Your task to perform on an android device: Show me productivity apps on the Play Store Image 0: 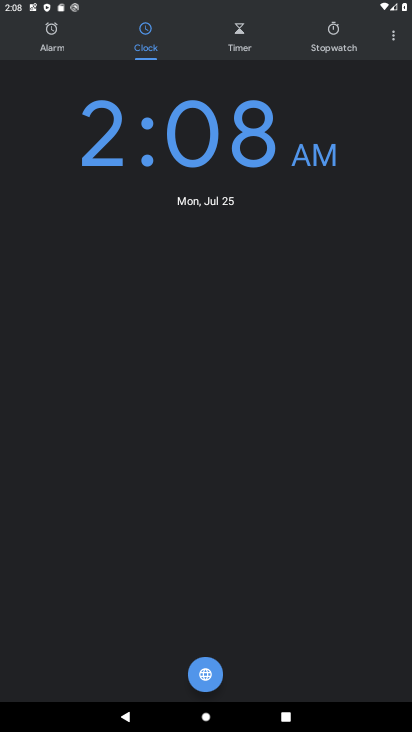
Step 0: press home button
Your task to perform on an android device: Show me productivity apps on the Play Store Image 1: 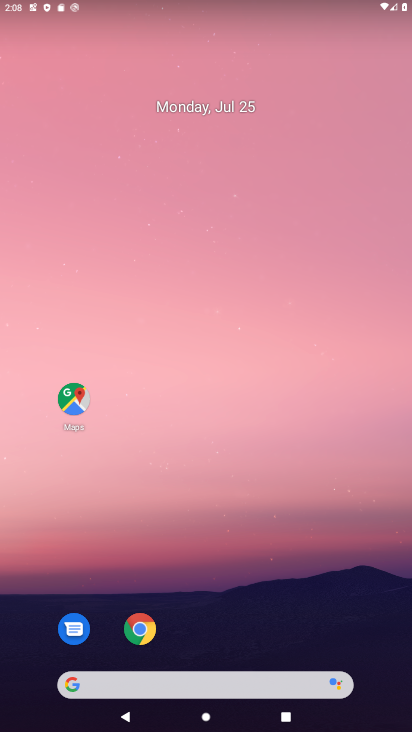
Step 1: drag from (210, 629) to (248, 27)
Your task to perform on an android device: Show me productivity apps on the Play Store Image 2: 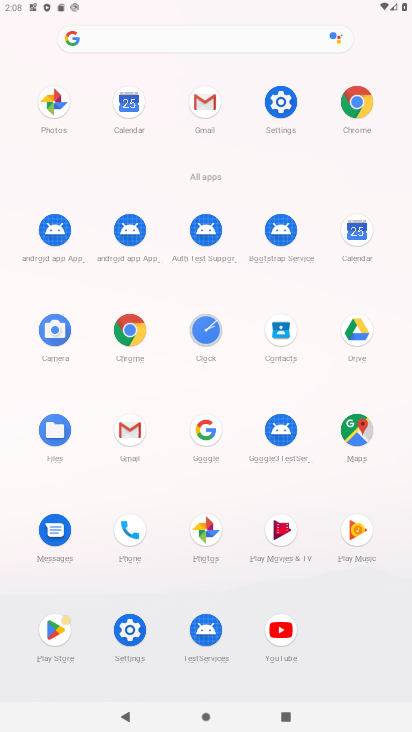
Step 2: click (64, 623)
Your task to perform on an android device: Show me productivity apps on the Play Store Image 3: 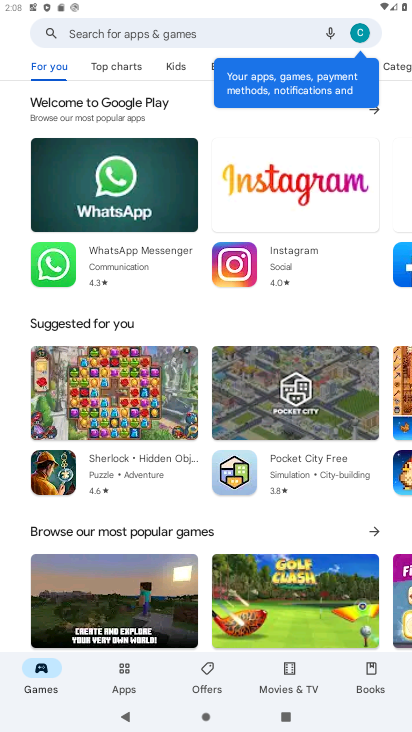
Step 3: click (117, 679)
Your task to perform on an android device: Show me productivity apps on the Play Store Image 4: 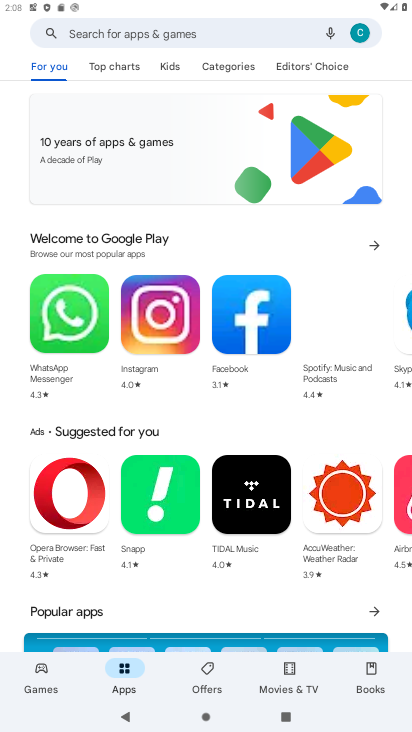
Step 4: click (227, 67)
Your task to perform on an android device: Show me productivity apps on the Play Store Image 5: 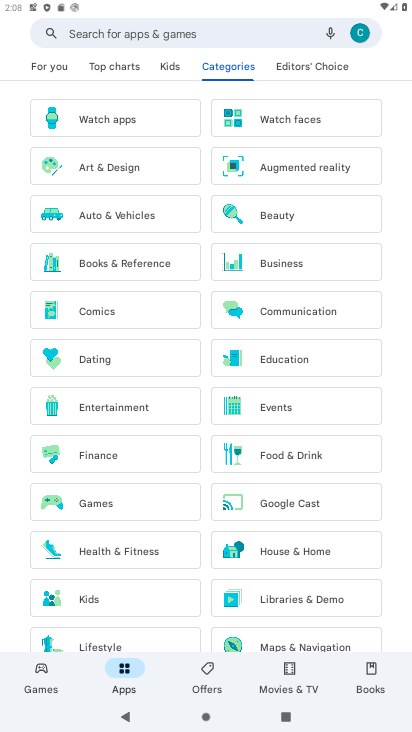
Step 5: drag from (159, 582) to (179, 324)
Your task to perform on an android device: Show me productivity apps on the Play Store Image 6: 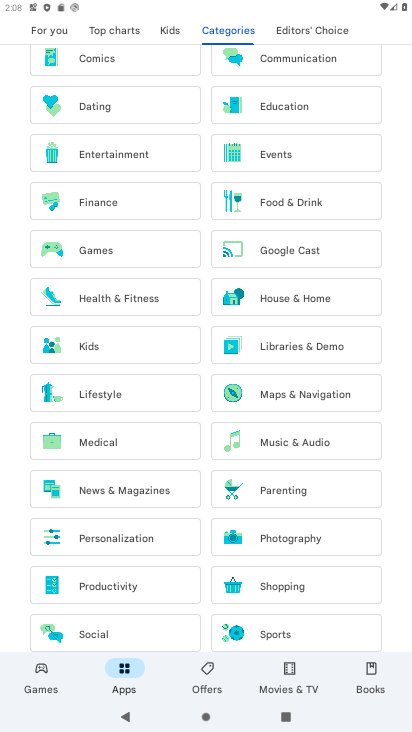
Step 6: click (118, 585)
Your task to perform on an android device: Show me productivity apps on the Play Store Image 7: 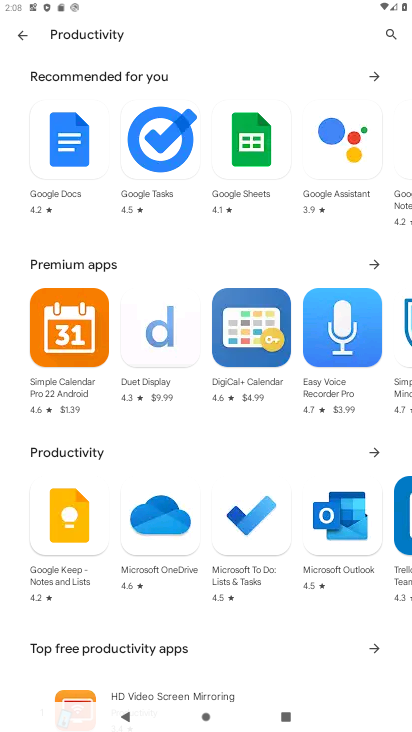
Step 7: task complete